Your task to perform on an android device: Find coffee shops on Maps Image 0: 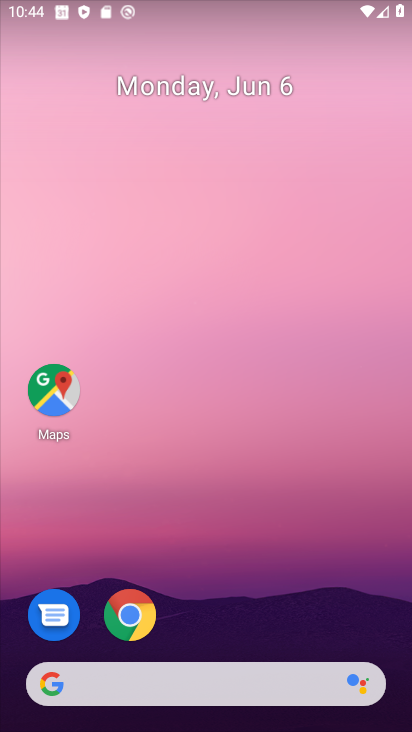
Step 0: click (33, 433)
Your task to perform on an android device: Find coffee shops on Maps Image 1: 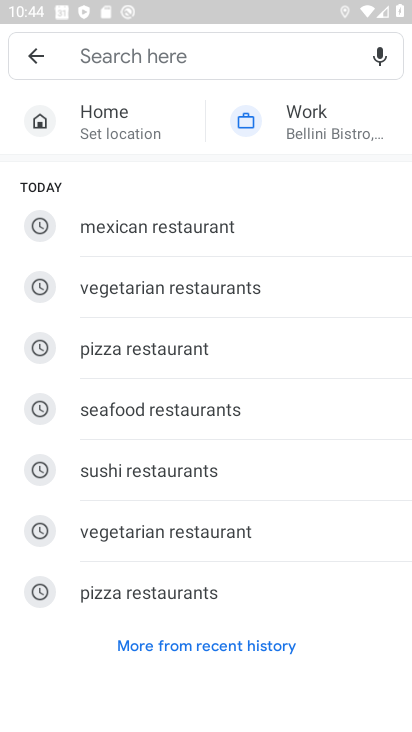
Step 1: click (247, 55)
Your task to perform on an android device: Find coffee shops on Maps Image 2: 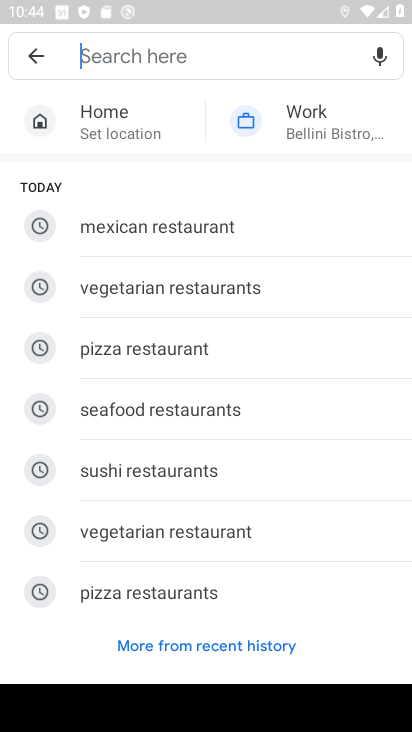
Step 2: type "coffeee"
Your task to perform on an android device: Find coffee shops on Maps Image 3: 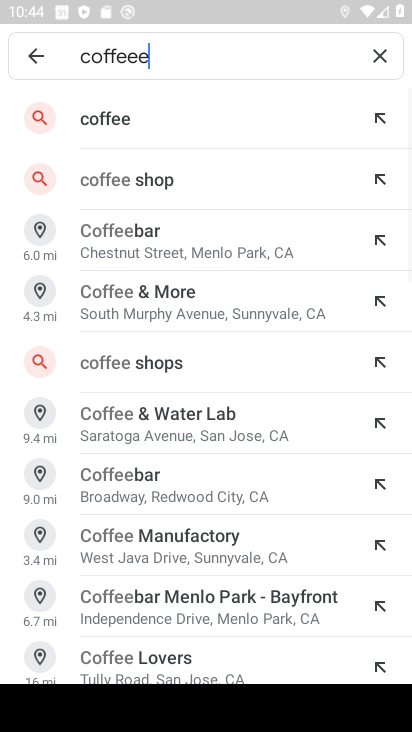
Step 3: click (177, 116)
Your task to perform on an android device: Find coffee shops on Maps Image 4: 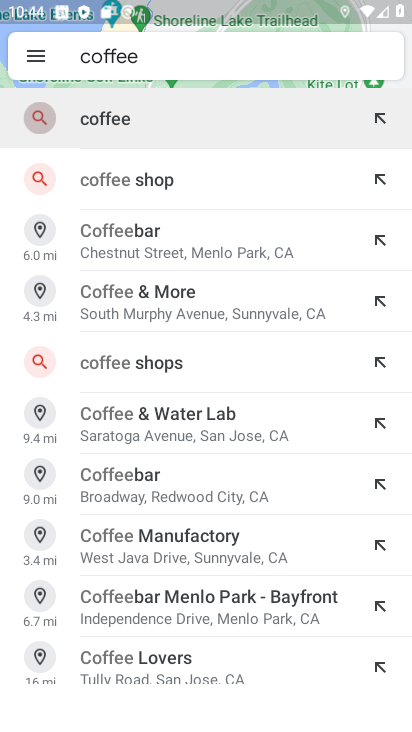
Step 4: task complete